Your task to perform on an android device: Open location settings Image 0: 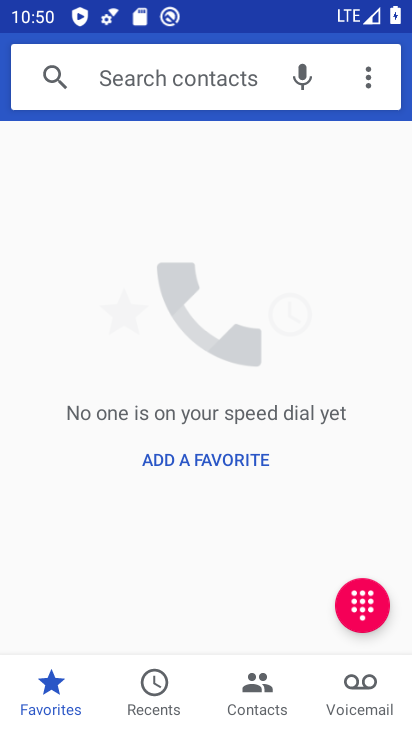
Step 0: press home button
Your task to perform on an android device: Open location settings Image 1: 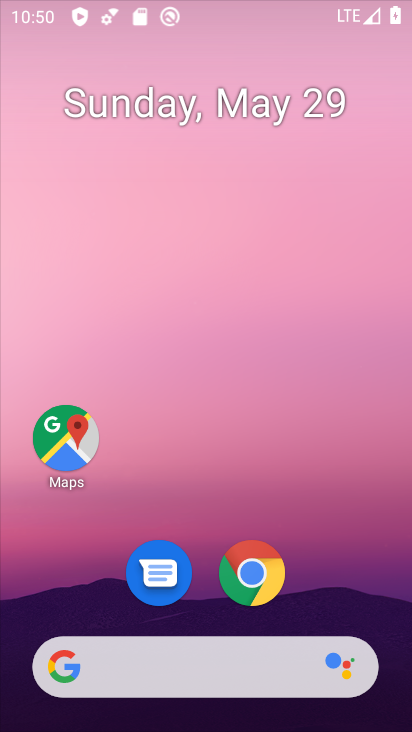
Step 1: drag from (286, 513) to (197, 56)
Your task to perform on an android device: Open location settings Image 2: 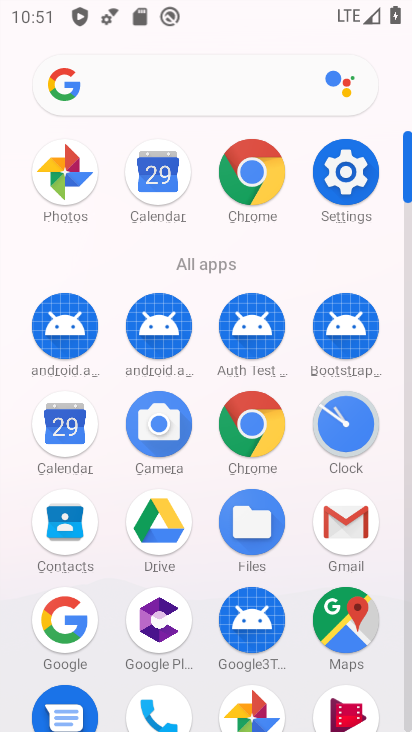
Step 2: click (341, 177)
Your task to perform on an android device: Open location settings Image 3: 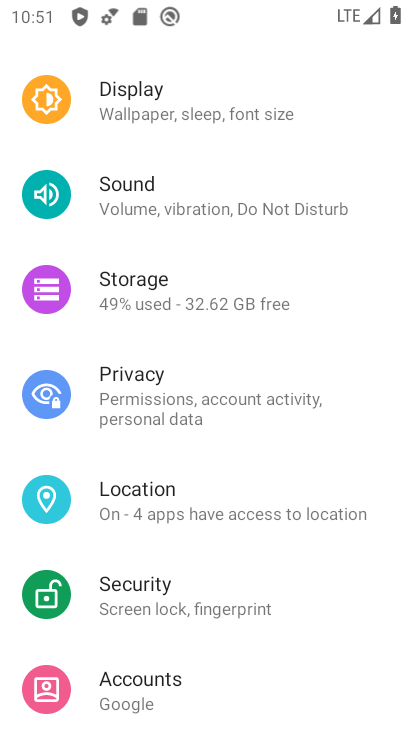
Step 3: click (190, 508)
Your task to perform on an android device: Open location settings Image 4: 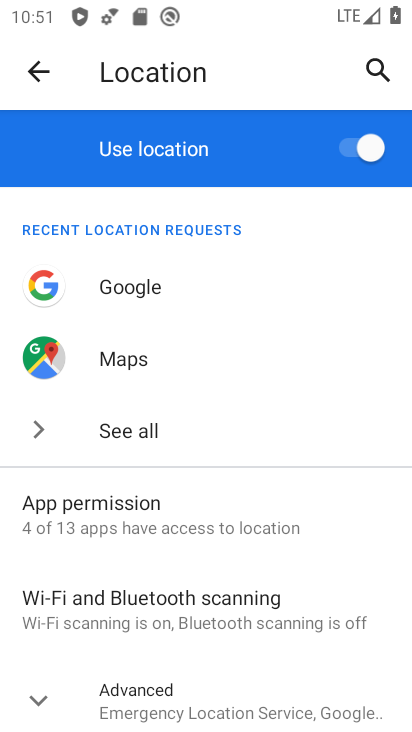
Step 4: task complete